Your task to perform on an android device: turn on location history Image 0: 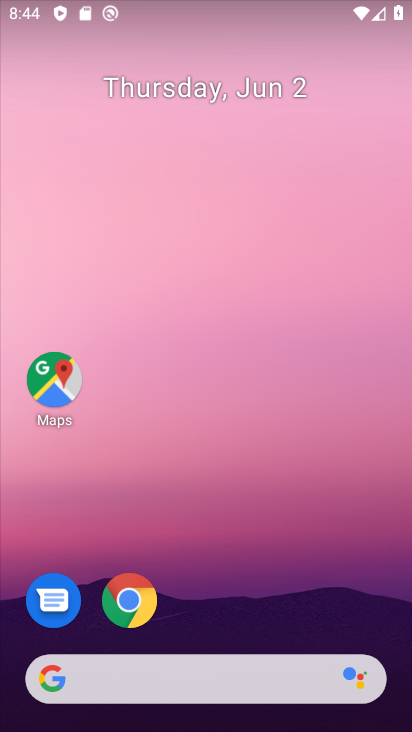
Step 0: drag from (205, 582) to (246, 132)
Your task to perform on an android device: turn on location history Image 1: 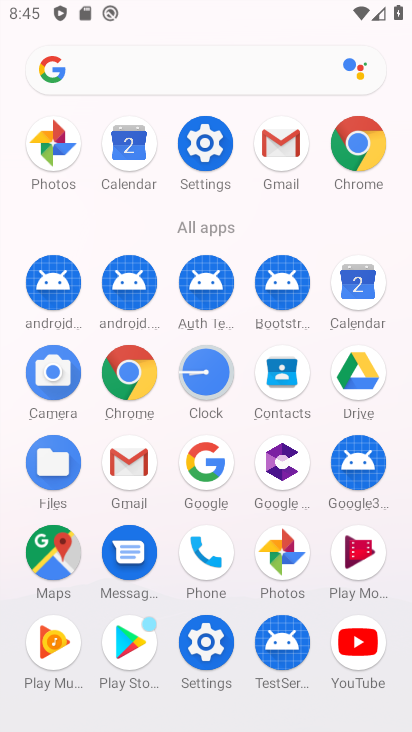
Step 1: click (207, 138)
Your task to perform on an android device: turn on location history Image 2: 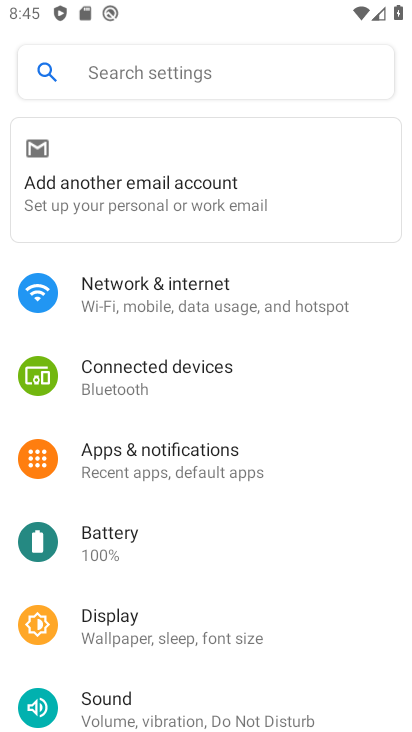
Step 2: drag from (168, 639) to (204, 147)
Your task to perform on an android device: turn on location history Image 3: 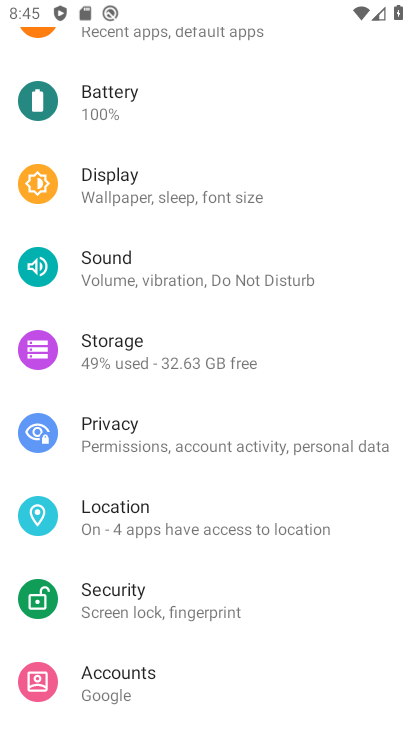
Step 3: click (169, 516)
Your task to perform on an android device: turn on location history Image 4: 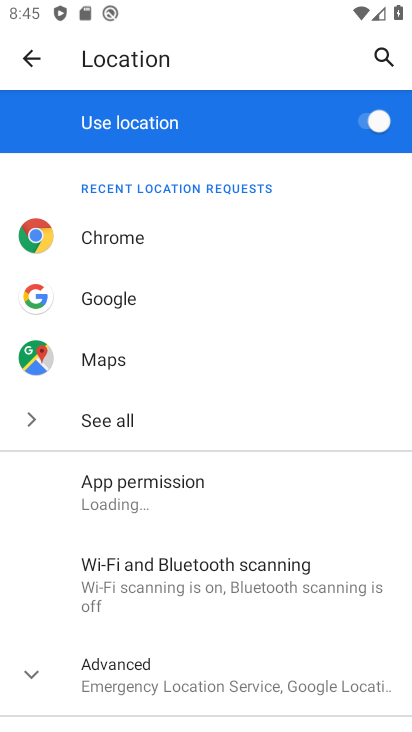
Step 4: click (147, 679)
Your task to perform on an android device: turn on location history Image 5: 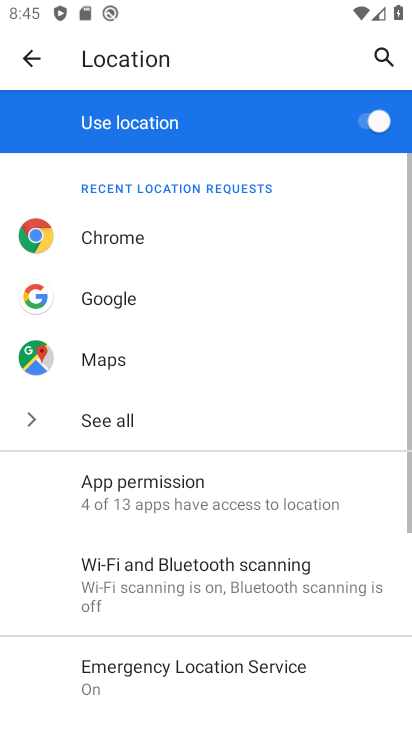
Step 5: drag from (197, 638) to (212, 298)
Your task to perform on an android device: turn on location history Image 6: 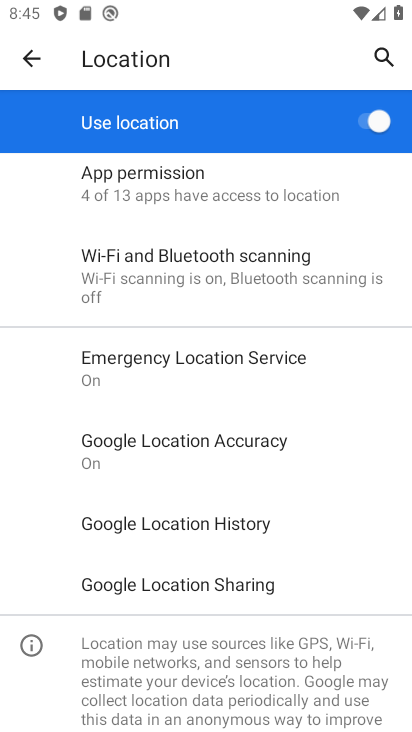
Step 6: click (189, 528)
Your task to perform on an android device: turn on location history Image 7: 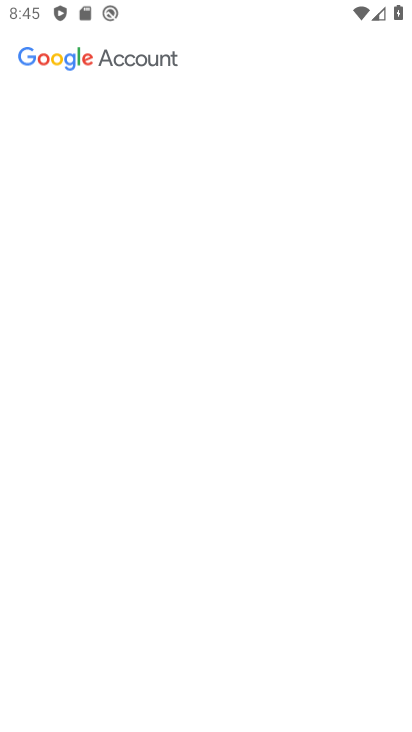
Step 7: task complete